Your task to perform on an android device: allow cookies in the chrome app Image 0: 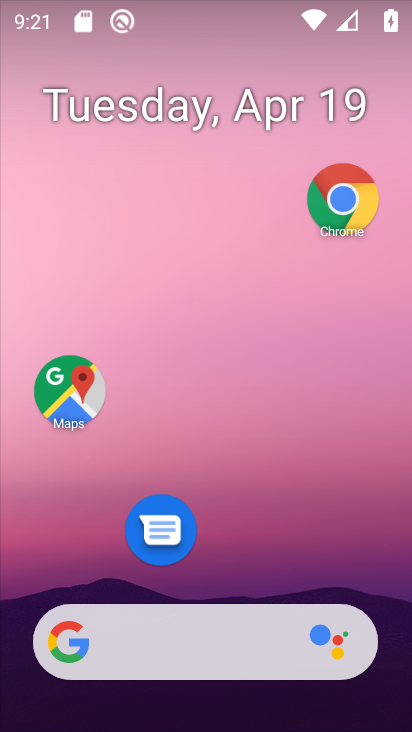
Step 0: drag from (220, 78) to (275, 64)
Your task to perform on an android device: allow cookies in the chrome app Image 1: 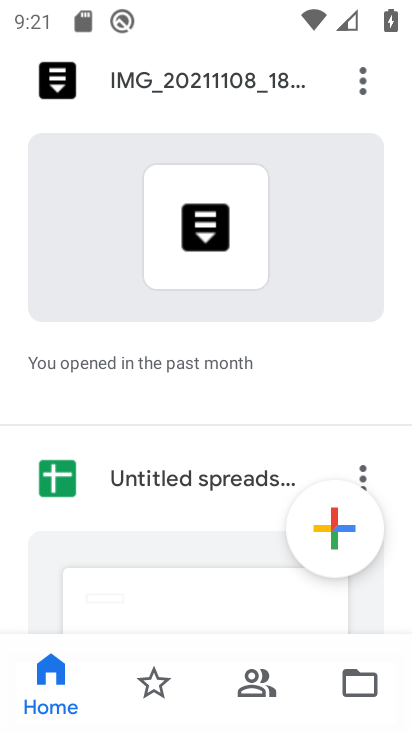
Step 1: drag from (166, 552) to (199, 342)
Your task to perform on an android device: allow cookies in the chrome app Image 2: 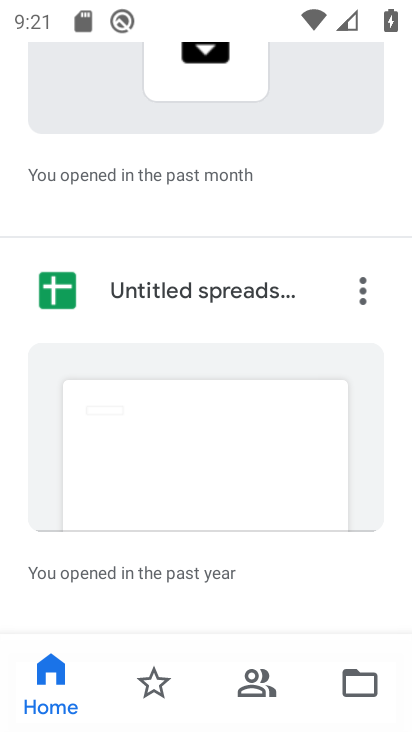
Step 2: drag from (205, 586) to (325, 217)
Your task to perform on an android device: allow cookies in the chrome app Image 3: 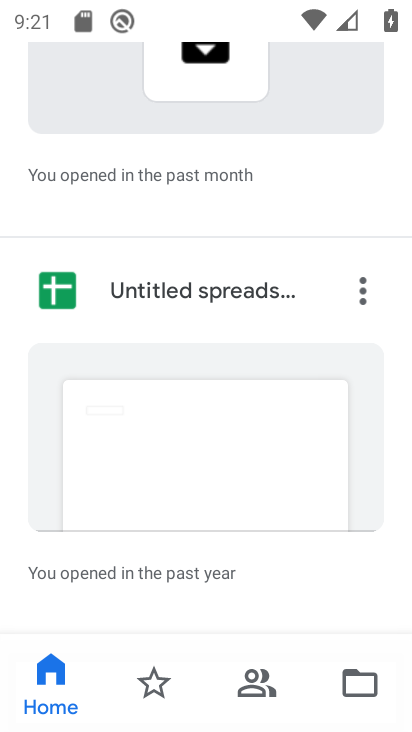
Step 3: drag from (248, 577) to (339, 80)
Your task to perform on an android device: allow cookies in the chrome app Image 4: 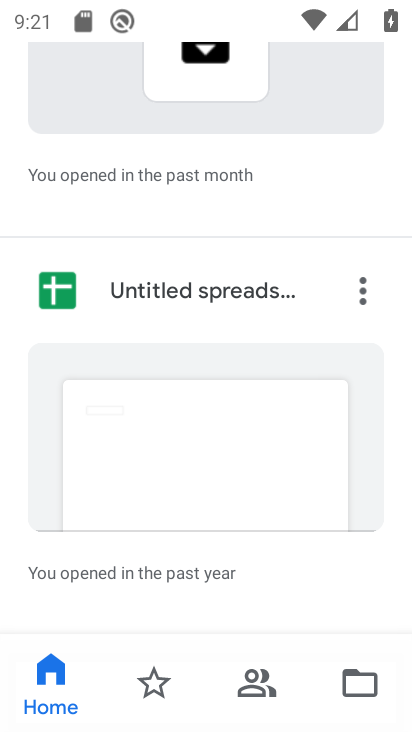
Step 4: drag from (251, 204) to (266, 699)
Your task to perform on an android device: allow cookies in the chrome app Image 5: 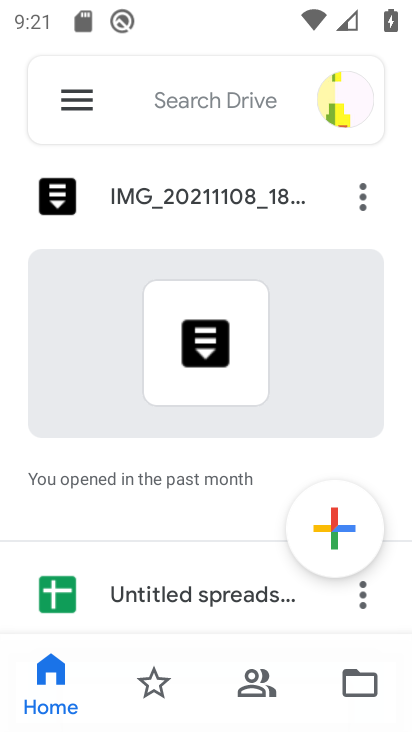
Step 5: drag from (208, 568) to (303, 183)
Your task to perform on an android device: allow cookies in the chrome app Image 6: 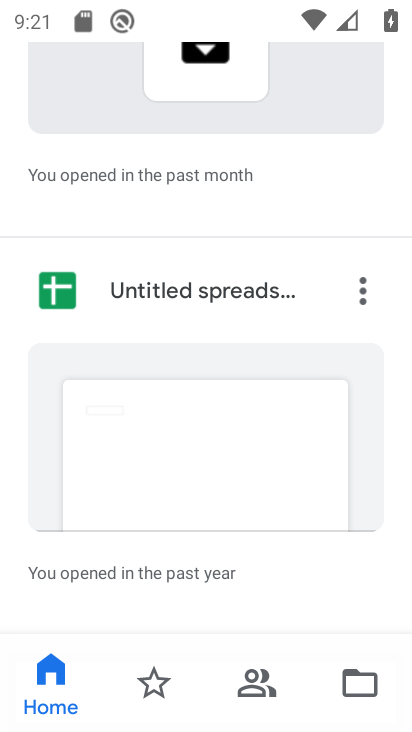
Step 6: drag from (207, 514) to (261, 336)
Your task to perform on an android device: allow cookies in the chrome app Image 7: 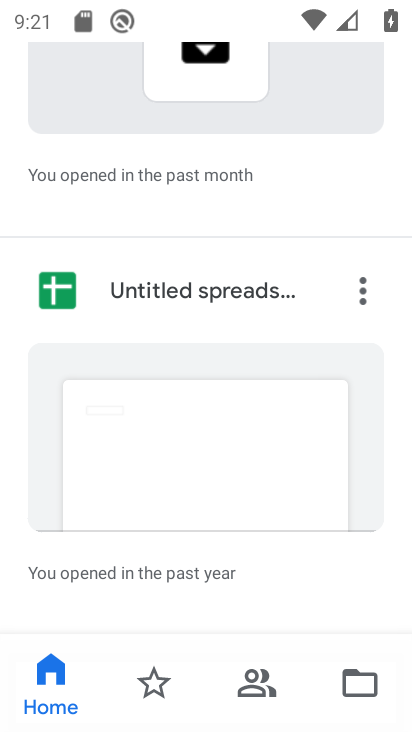
Step 7: drag from (197, 239) to (318, 724)
Your task to perform on an android device: allow cookies in the chrome app Image 8: 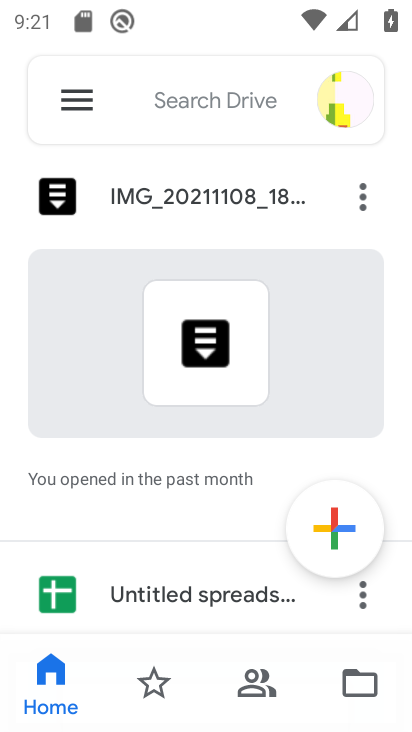
Step 8: click (88, 110)
Your task to perform on an android device: allow cookies in the chrome app Image 9: 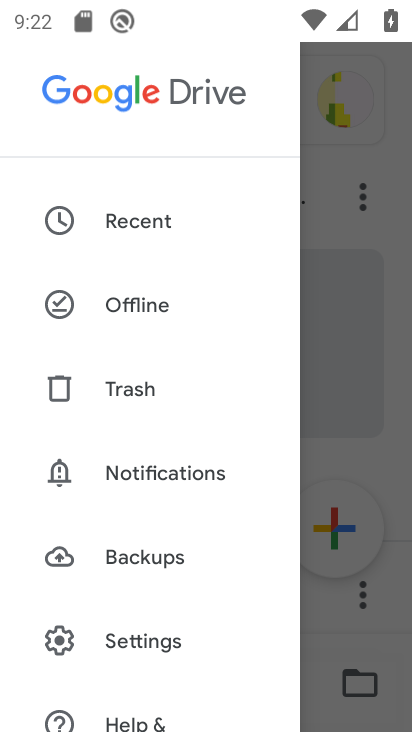
Step 9: drag from (162, 639) to (231, 343)
Your task to perform on an android device: allow cookies in the chrome app Image 10: 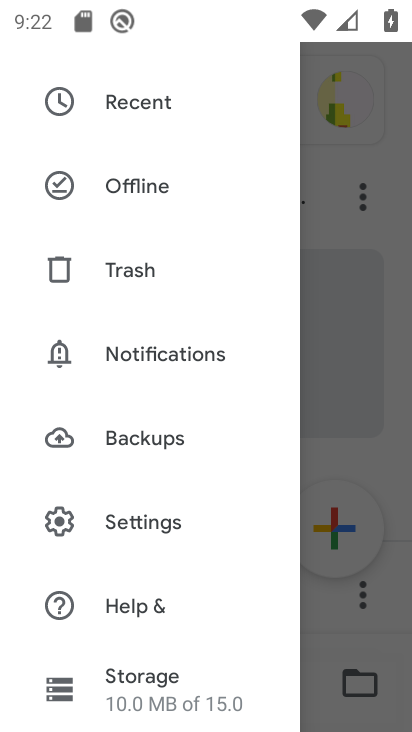
Step 10: drag from (126, 652) to (237, 370)
Your task to perform on an android device: allow cookies in the chrome app Image 11: 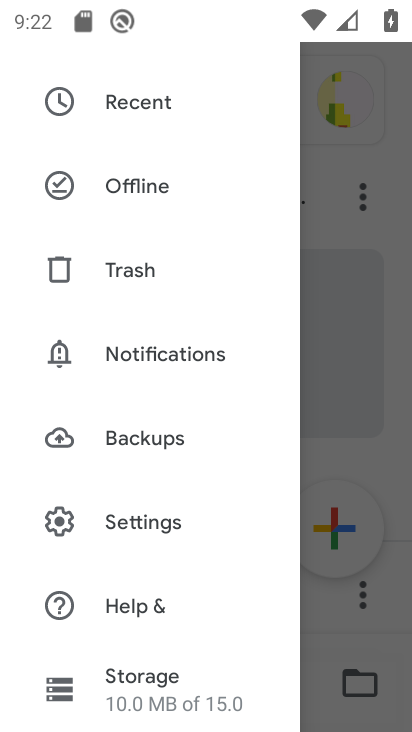
Step 11: click (148, 511)
Your task to perform on an android device: allow cookies in the chrome app Image 12: 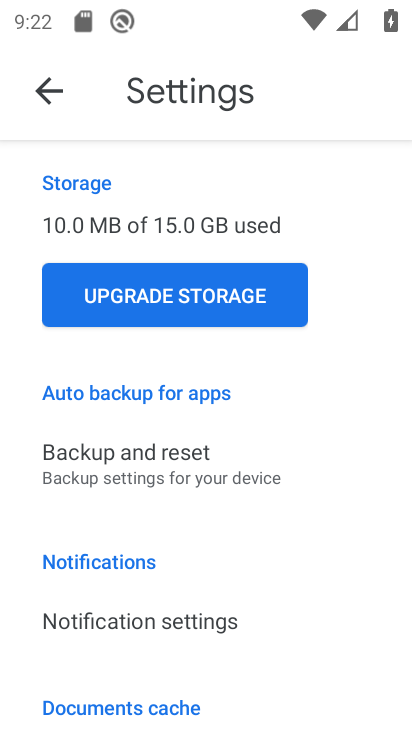
Step 12: press home button
Your task to perform on an android device: allow cookies in the chrome app Image 13: 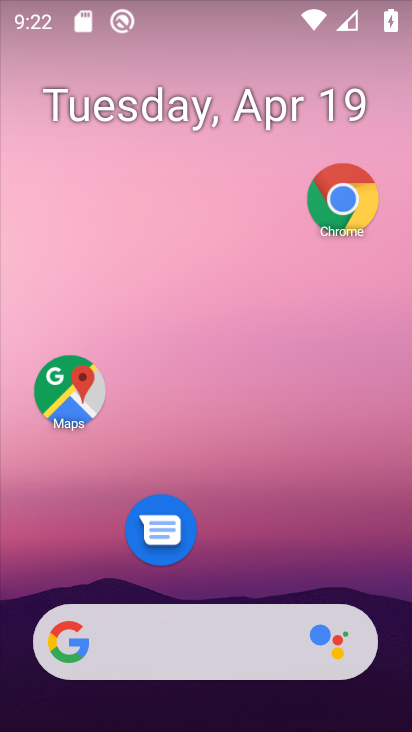
Step 13: drag from (219, 586) to (249, 97)
Your task to perform on an android device: allow cookies in the chrome app Image 14: 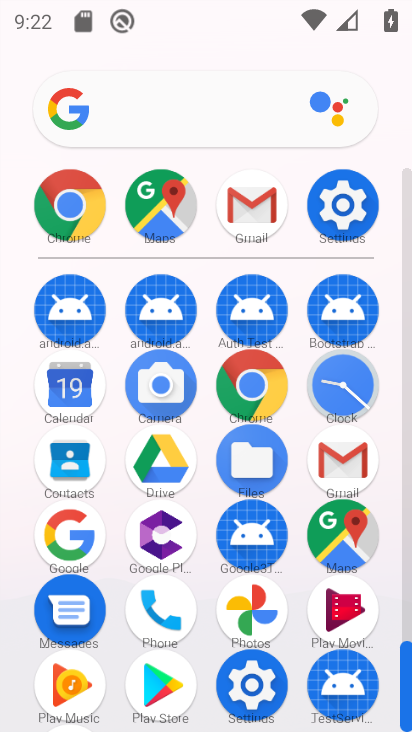
Step 14: drag from (208, 708) to (196, 187)
Your task to perform on an android device: allow cookies in the chrome app Image 15: 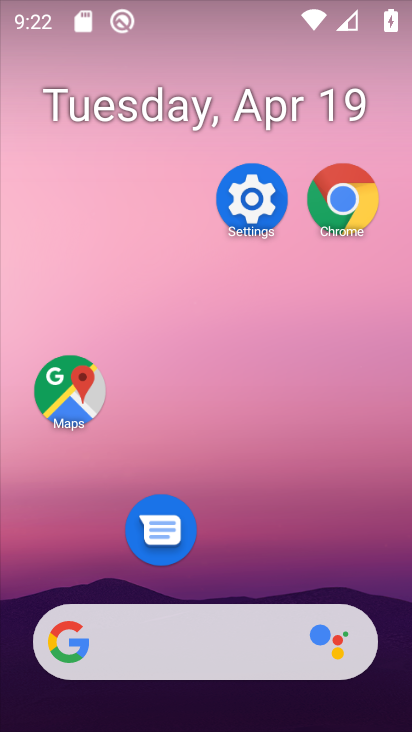
Step 15: click (322, 206)
Your task to perform on an android device: allow cookies in the chrome app Image 16: 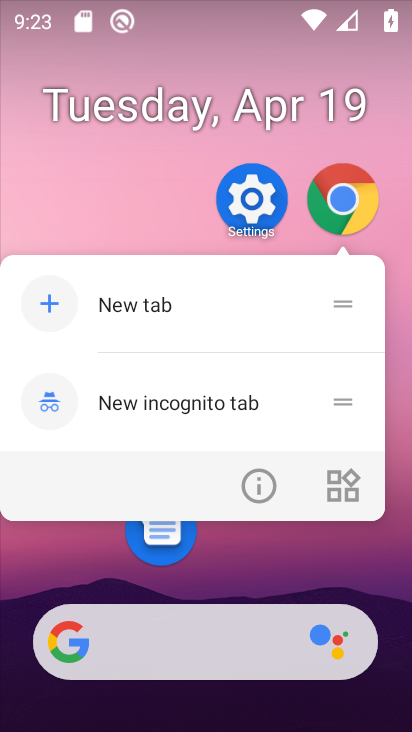
Step 16: click (268, 475)
Your task to perform on an android device: allow cookies in the chrome app Image 17: 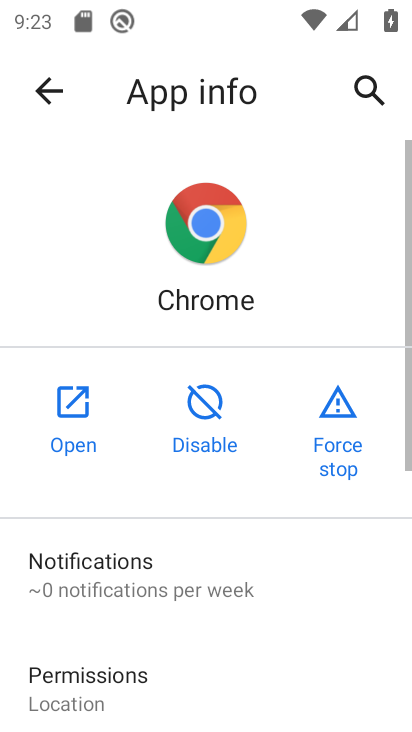
Step 17: click (87, 422)
Your task to perform on an android device: allow cookies in the chrome app Image 18: 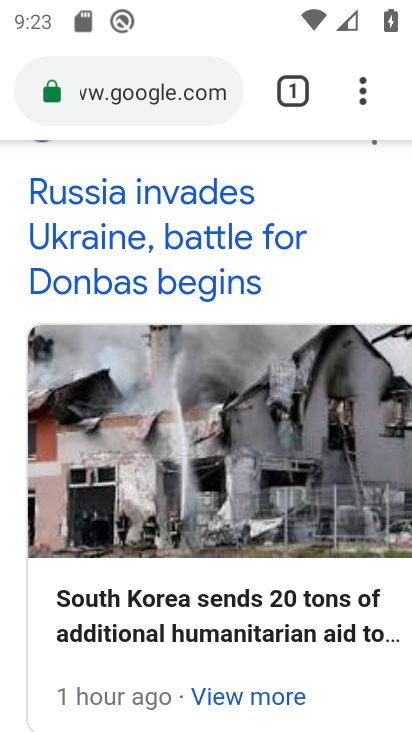
Step 18: click (369, 85)
Your task to perform on an android device: allow cookies in the chrome app Image 19: 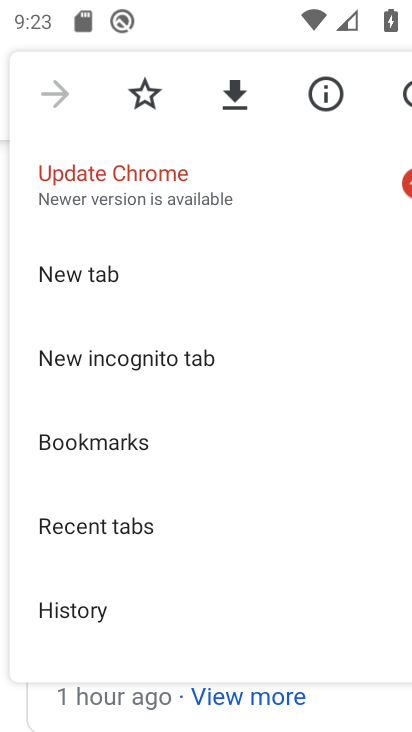
Step 19: drag from (173, 618) to (335, 29)
Your task to perform on an android device: allow cookies in the chrome app Image 20: 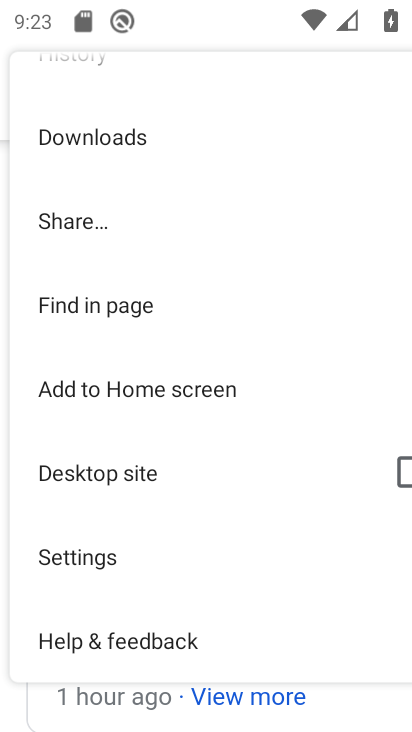
Step 20: click (84, 563)
Your task to perform on an android device: allow cookies in the chrome app Image 21: 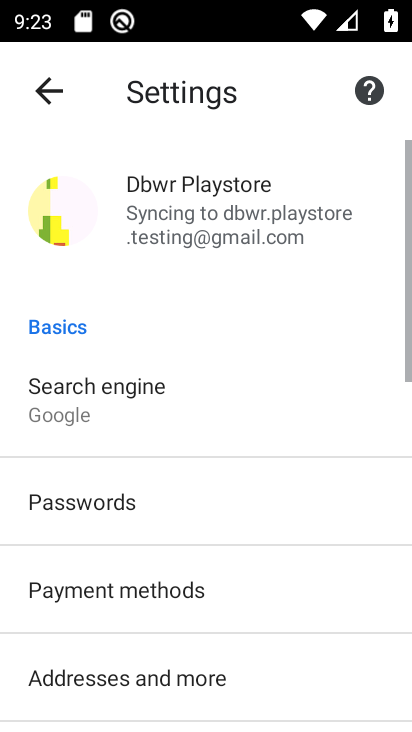
Step 21: drag from (168, 587) to (267, 161)
Your task to perform on an android device: allow cookies in the chrome app Image 22: 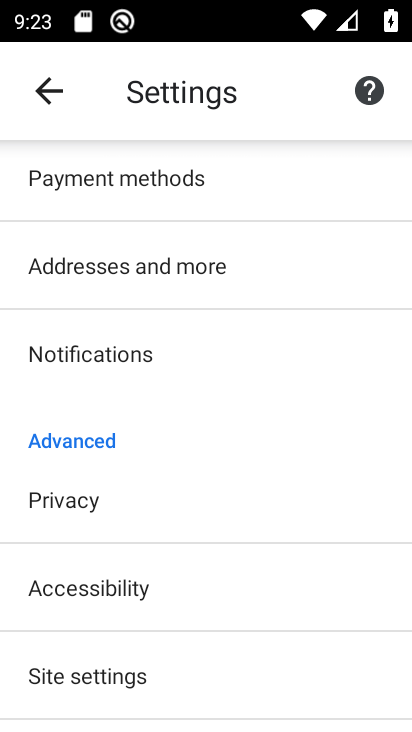
Step 22: drag from (164, 635) to (303, 127)
Your task to perform on an android device: allow cookies in the chrome app Image 23: 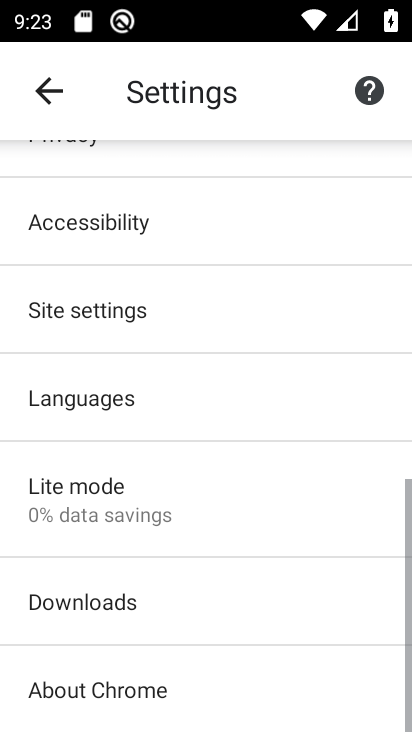
Step 23: click (133, 318)
Your task to perform on an android device: allow cookies in the chrome app Image 24: 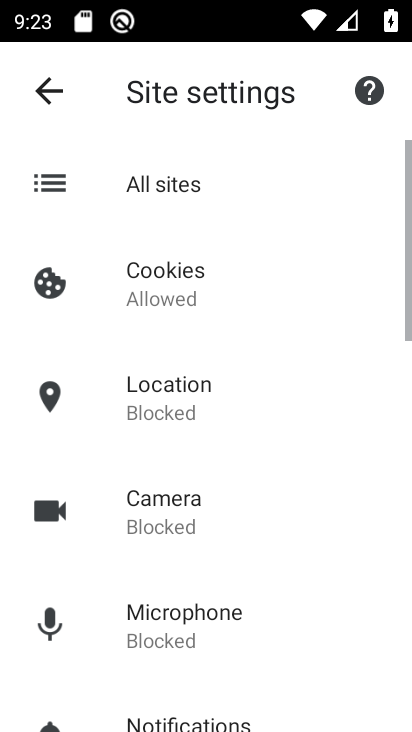
Step 24: click (144, 292)
Your task to perform on an android device: allow cookies in the chrome app Image 25: 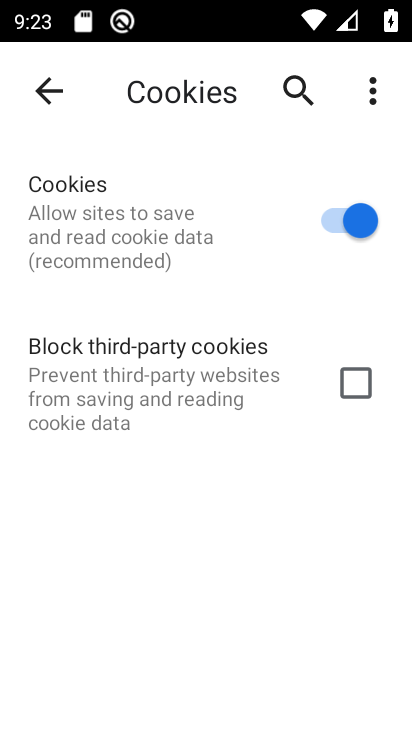
Step 25: task complete